Your task to perform on an android device: Is it going to rain tomorrow? Image 0: 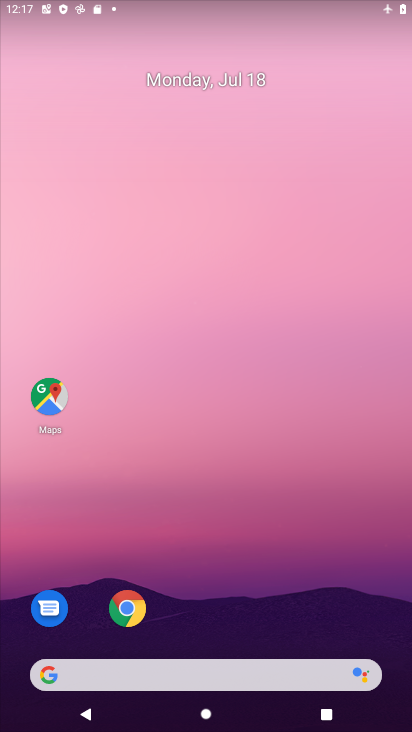
Step 0: drag from (372, 658) to (285, 63)
Your task to perform on an android device: Is it going to rain tomorrow? Image 1: 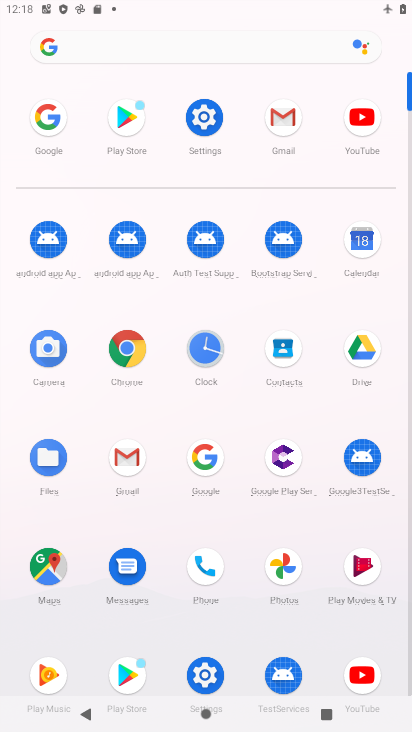
Step 1: click (198, 454)
Your task to perform on an android device: Is it going to rain tomorrow? Image 2: 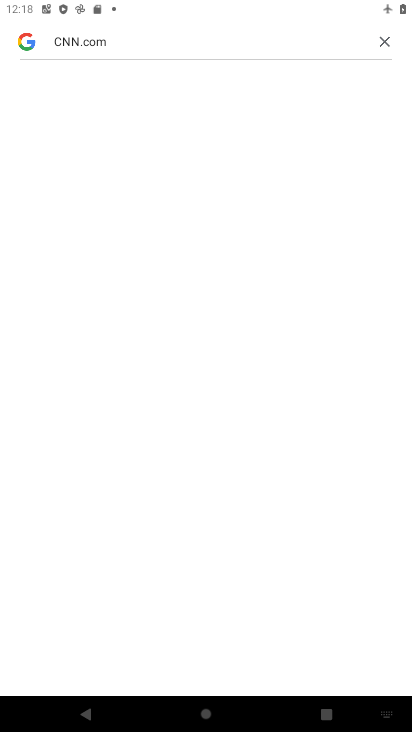
Step 2: click (377, 38)
Your task to perform on an android device: Is it going to rain tomorrow? Image 3: 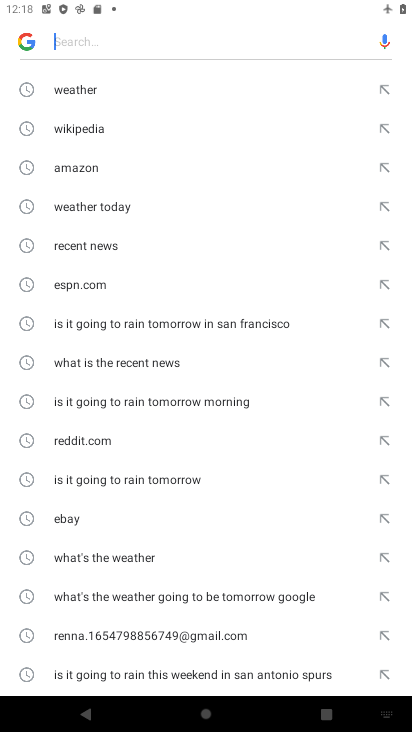
Step 3: drag from (121, 617) to (146, 257)
Your task to perform on an android device: Is it going to rain tomorrow? Image 4: 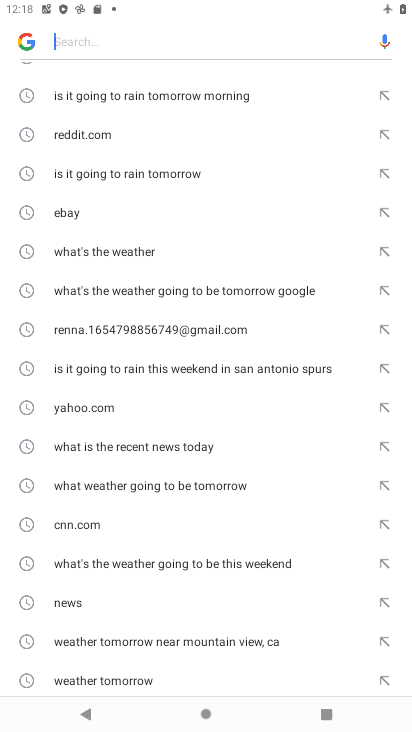
Step 4: type "Is it going to rain tomorrow?"
Your task to perform on an android device: Is it going to rain tomorrow? Image 5: 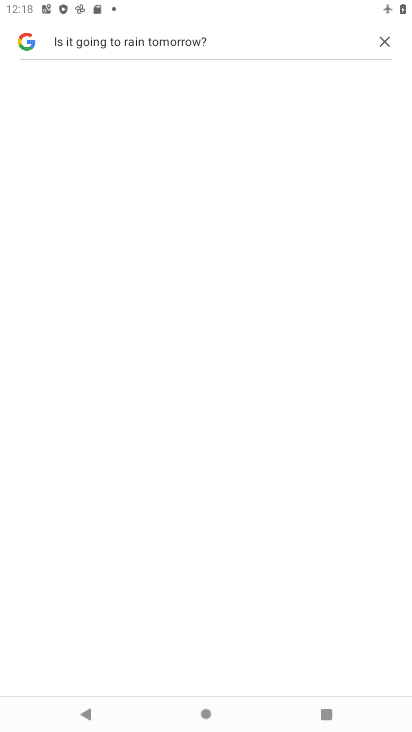
Step 5: task complete